Your task to perform on an android device: Toggle the flashlight Image 0: 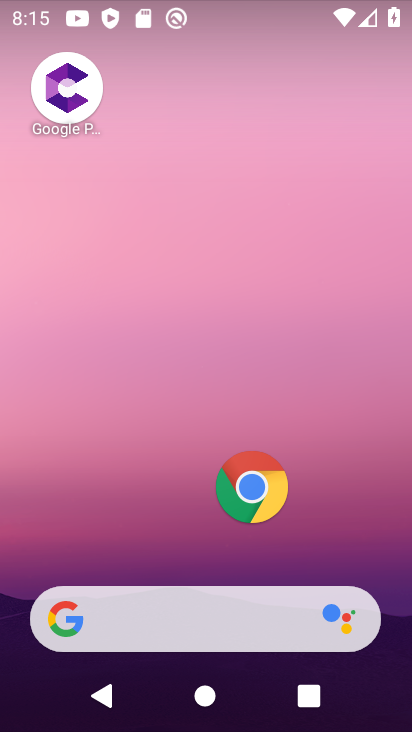
Step 0: drag from (269, 10) to (251, 482)
Your task to perform on an android device: Toggle the flashlight Image 1: 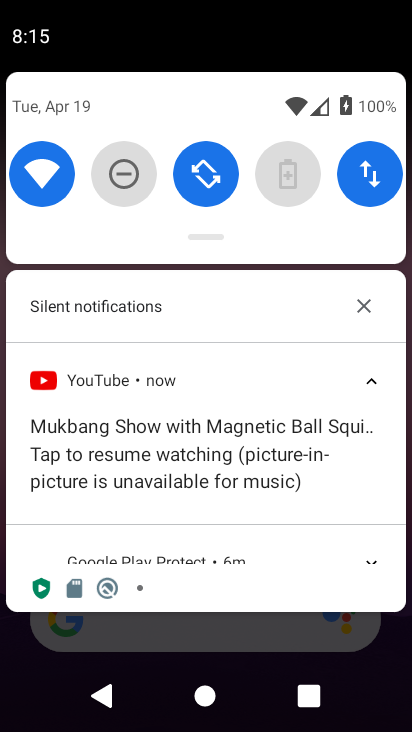
Step 1: task complete